Your task to perform on an android device: find which apps use the phone's location Image 0: 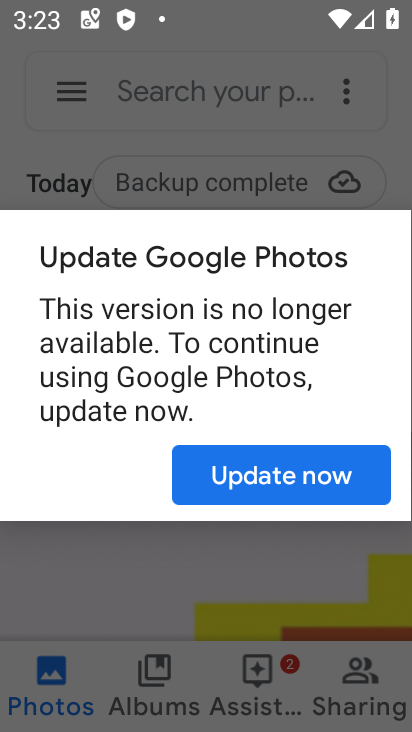
Step 0: press home button
Your task to perform on an android device: find which apps use the phone's location Image 1: 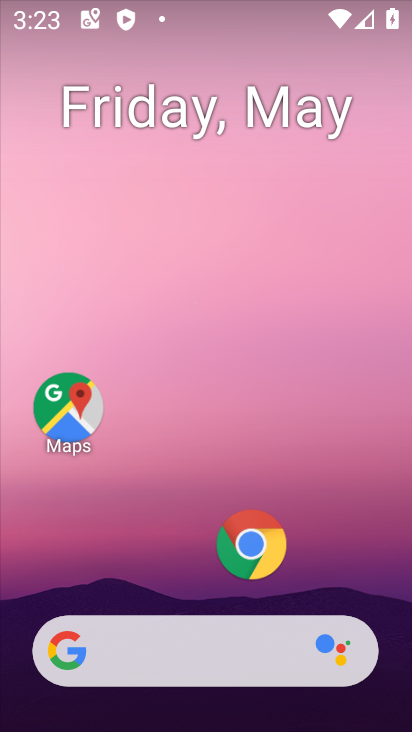
Step 1: drag from (198, 579) to (236, 218)
Your task to perform on an android device: find which apps use the phone's location Image 2: 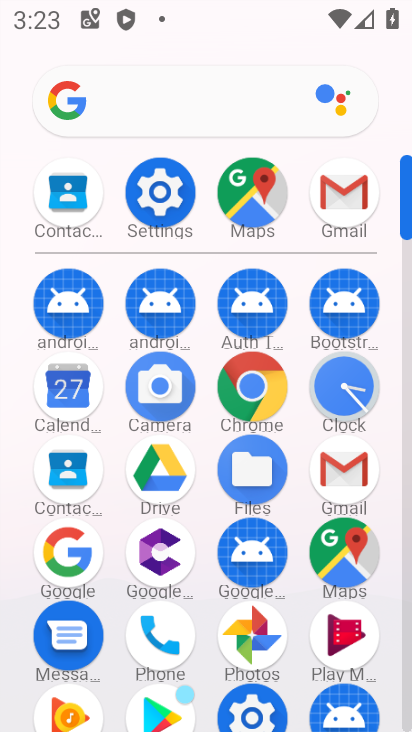
Step 2: click (187, 203)
Your task to perform on an android device: find which apps use the phone's location Image 3: 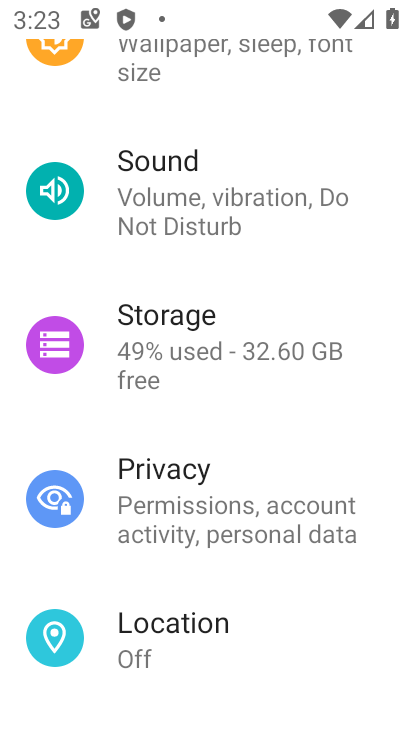
Step 3: click (198, 632)
Your task to perform on an android device: find which apps use the phone's location Image 4: 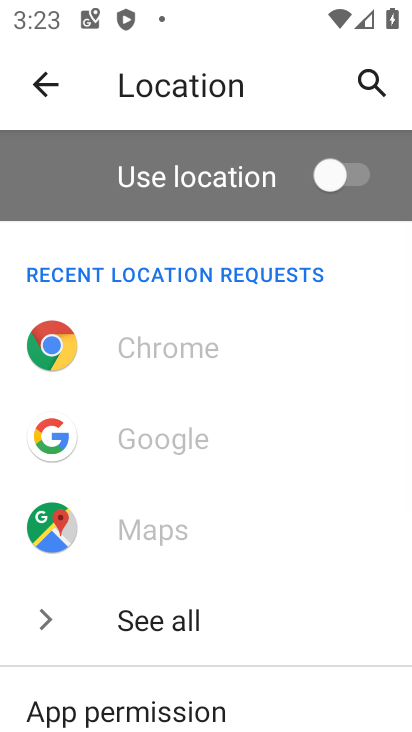
Step 4: drag from (217, 544) to (270, 331)
Your task to perform on an android device: find which apps use the phone's location Image 5: 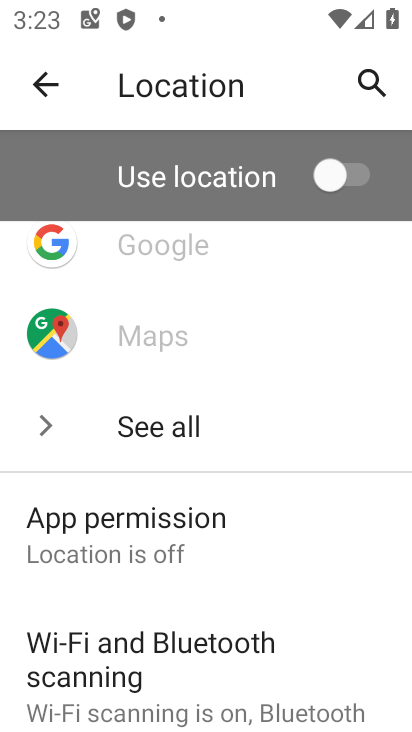
Step 5: click (198, 524)
Your task to perform on an android device: find which apps use the phone's location Image 6: 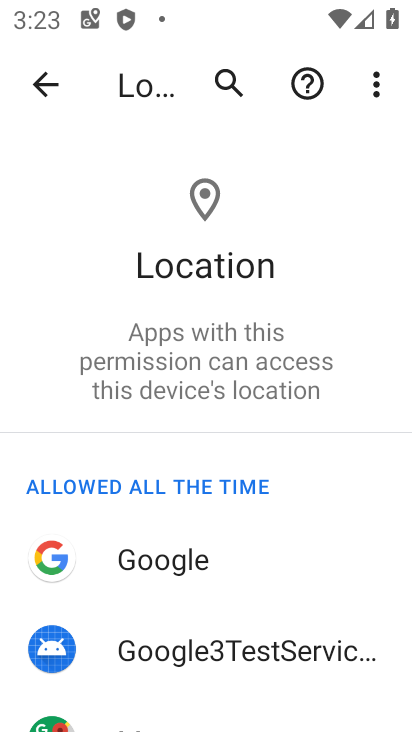
Step 6: task complete